Your task to perform on an android device: toggle improve location accuracy Image 0: 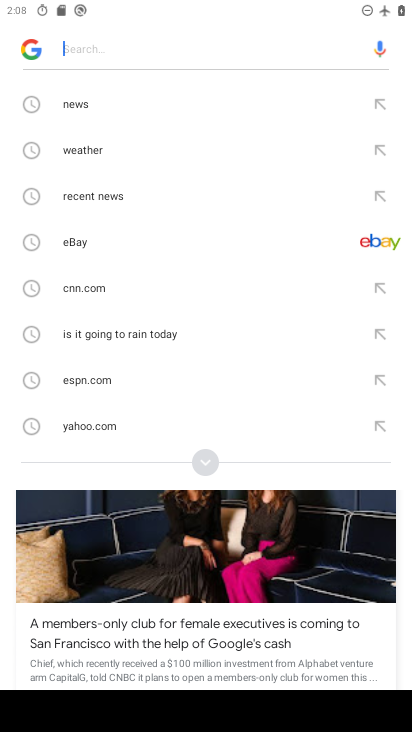
Step 0: press home button
Your task to perform on an android device: toggle improve location accuracy Image 1: 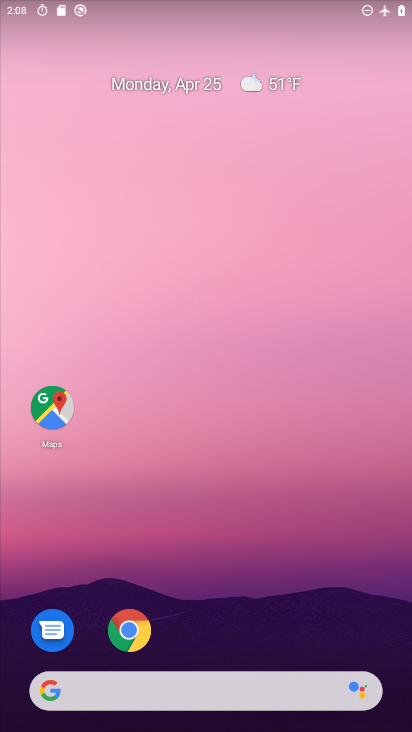
Step 1: drag from (337, 547) to (356, 74)
Your task to perform on an android device: toggle improve location accuracy Image 2: 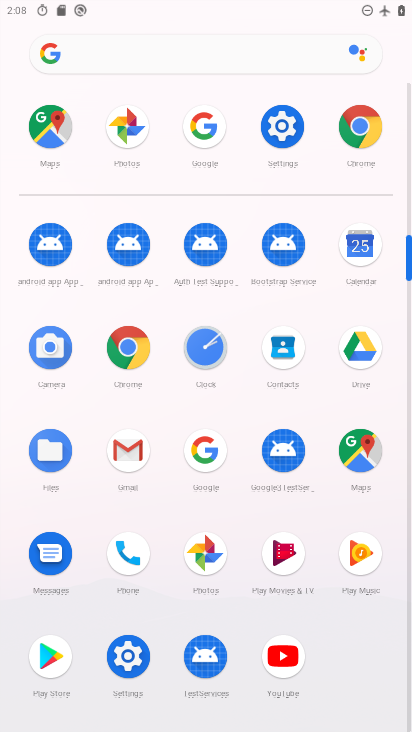
Step 2: click (292, 131)
Your task to perform on an android device: toggle improve location accuracy Image 3: 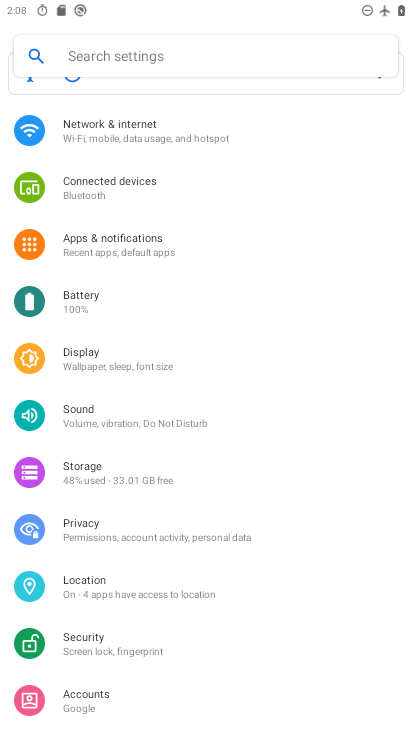
Step 3: drag from (267, 200) to (219, 568)
Your task to perform on an android device: toggle improve location accuracy Image 4: 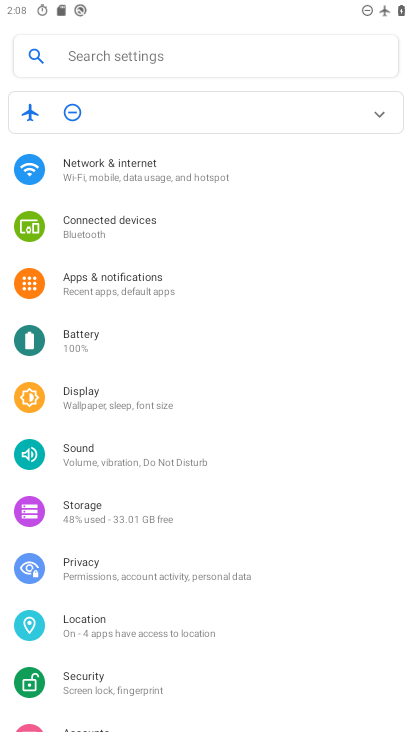
Step 4: drag from (256, 548) to (264, 114)
Your task to perform on an android device: toggle improve location accuracy Image 5: 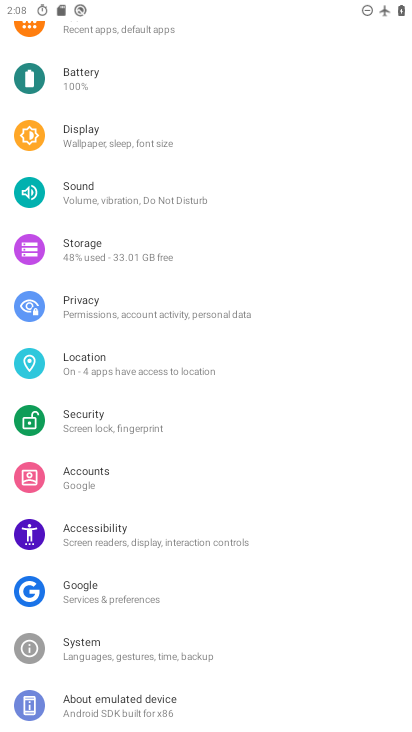
Step 5: click (128, 368)
Your task to perform on an android device: toggle improve location accuracy Image 6: 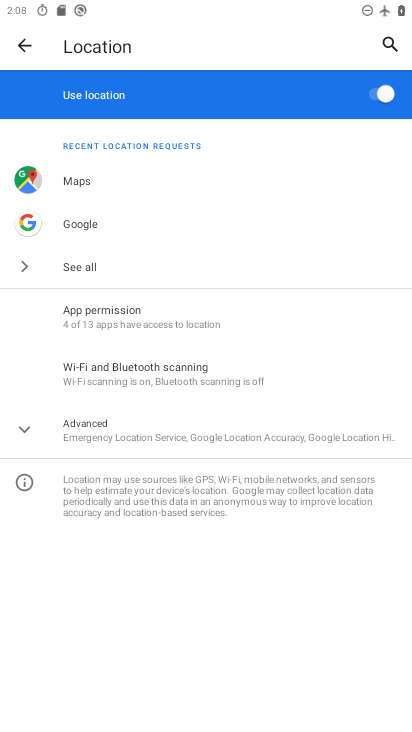
Step 6: click (115, 433)
Your task to perform on an android device: toggle improve location accuracy Image 7: 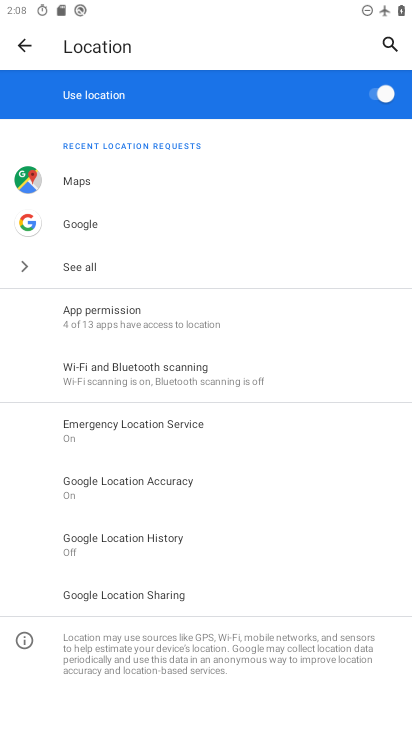
Step 7: click (108, 488)
Your task to perform on an android device: toggle improve location accuracy Image 8: 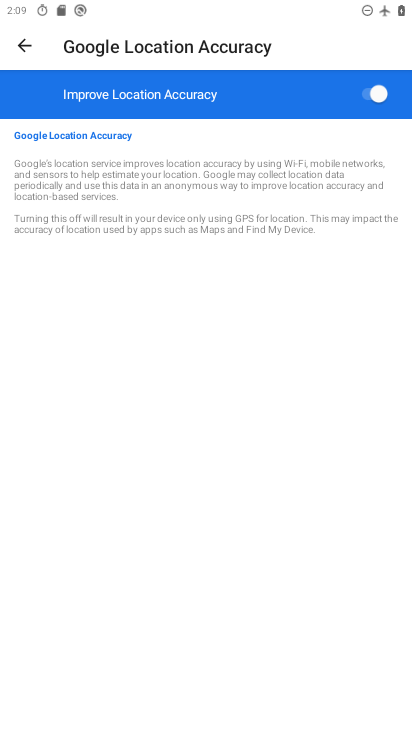
Step 8: click (363, 102)
Your task to perform on an android device: toggle improve location accuracy Image 9: 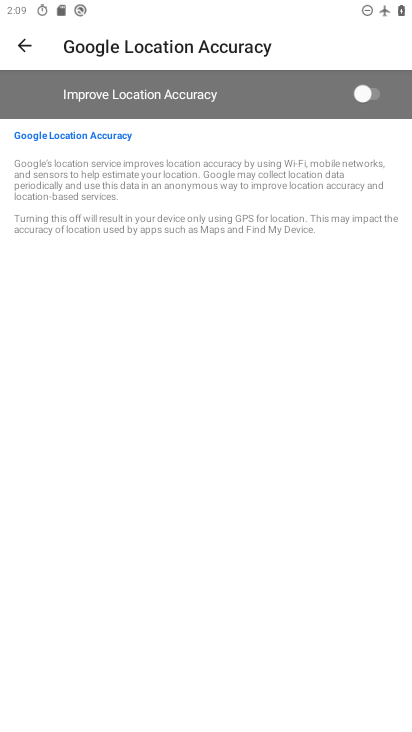
Step 9: task complete